Your task to perform on an android device: toggle priority inbox in the gmail app Image 0: 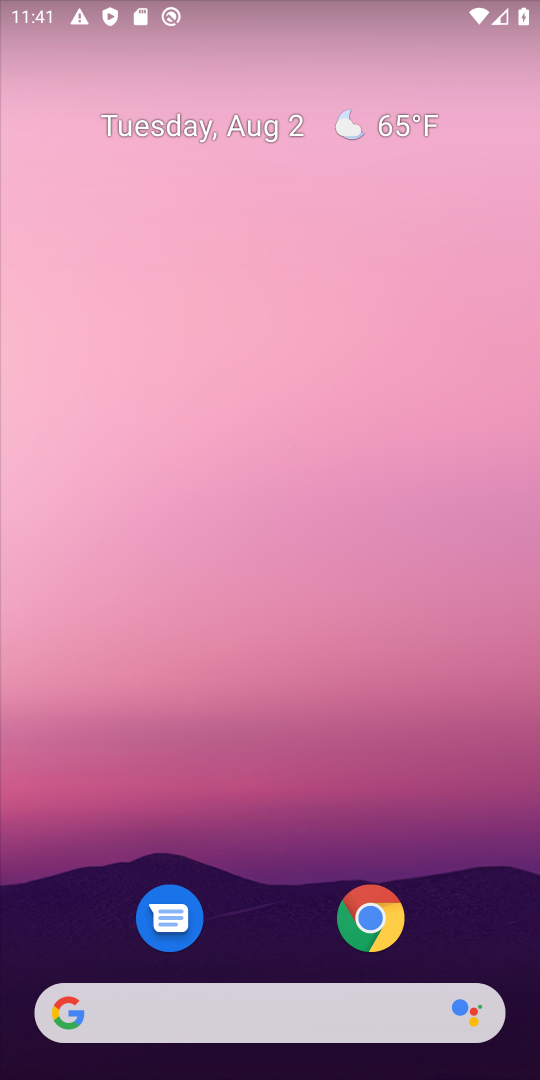
Step 0: drag from (330, 726) to (294, 38)
Your task to perform on an android device: toggle priority inbox in the gmail app Image 1: 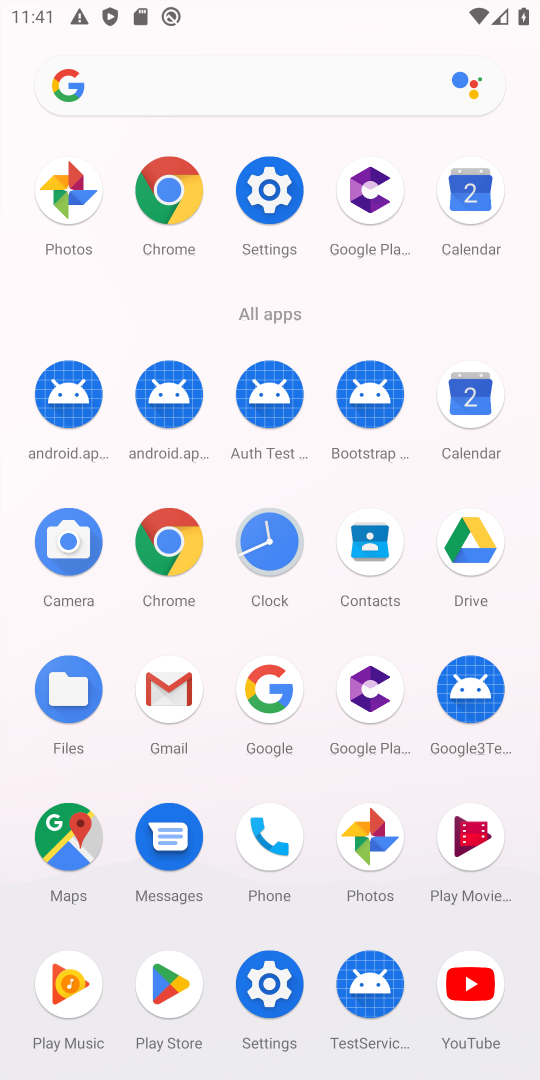
Step 1: click (173, 694)
Your task to perform on an android device: toggle priority inbox in the gmail app Image 2: 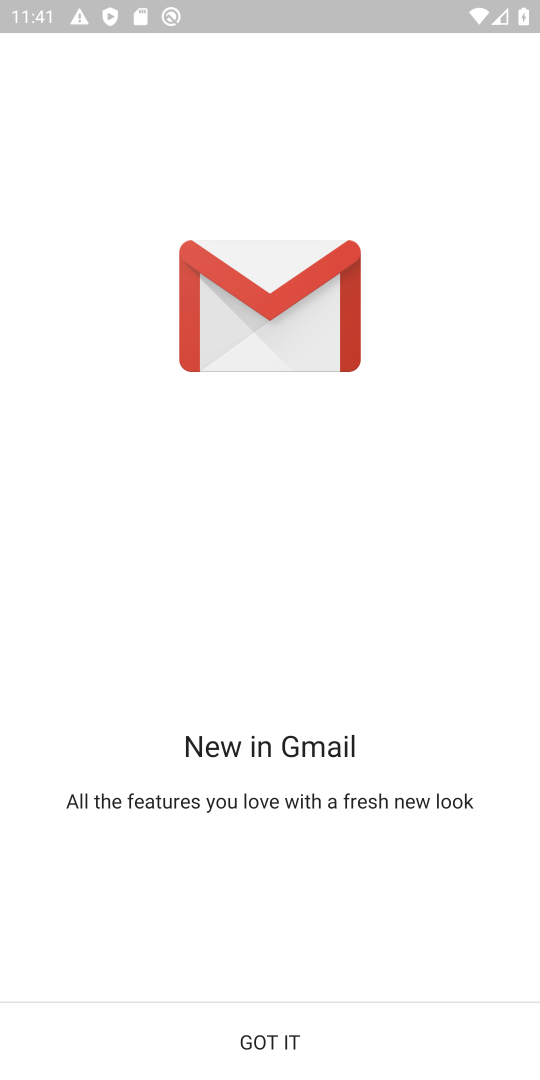
Step 2: click (331, 1034)
Your task to perform on an android device: toggle priority inbox in the gmail app Image 3: 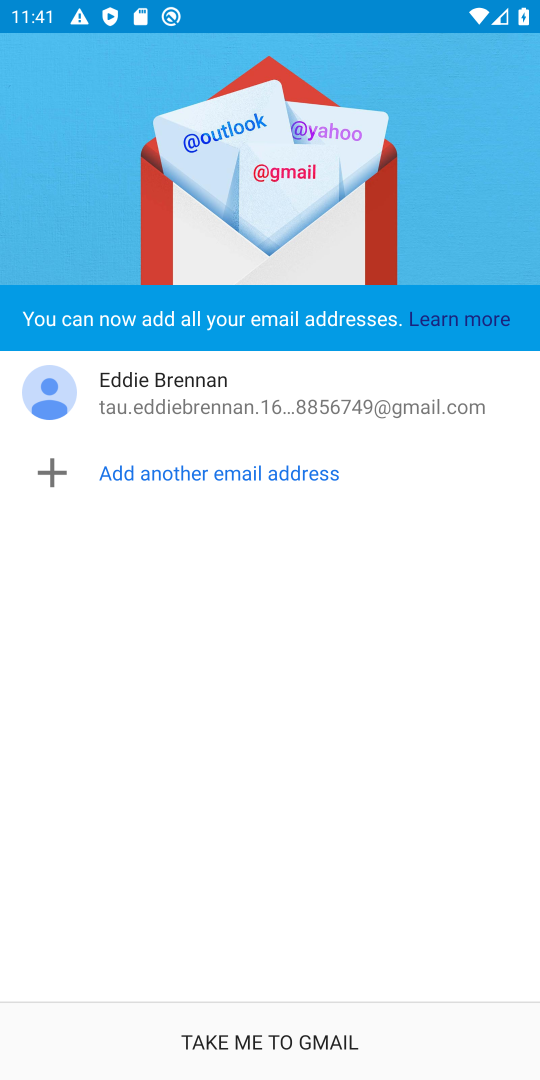
Step 3: click (335, 1032)
Your task to perform on an android device: toggle priority inbox in the gmail app Image 4: 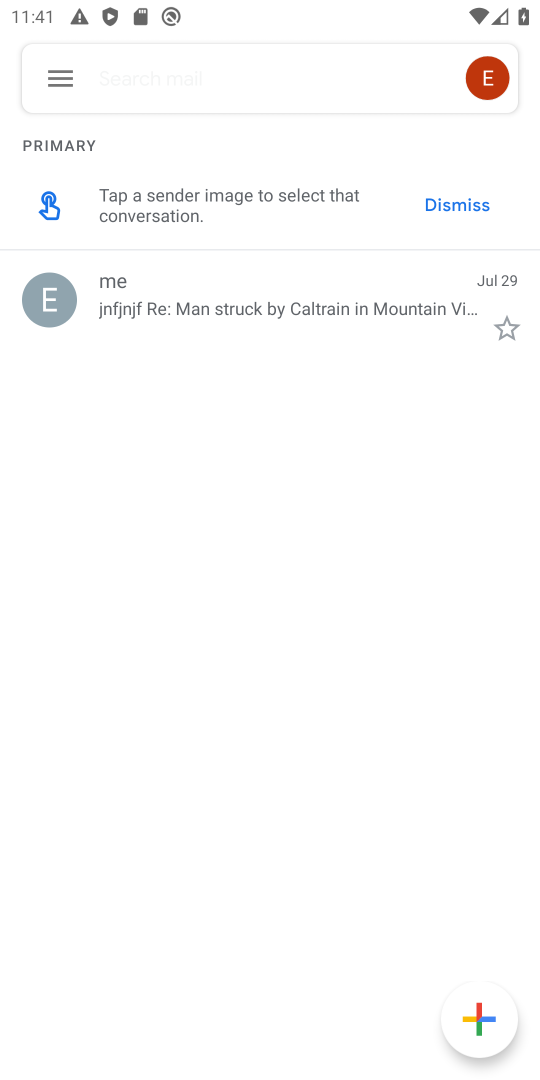
Step 4: click (60, 64)
Your task to perform on an android device: toggle priority inbox in the gmail app Image 5: 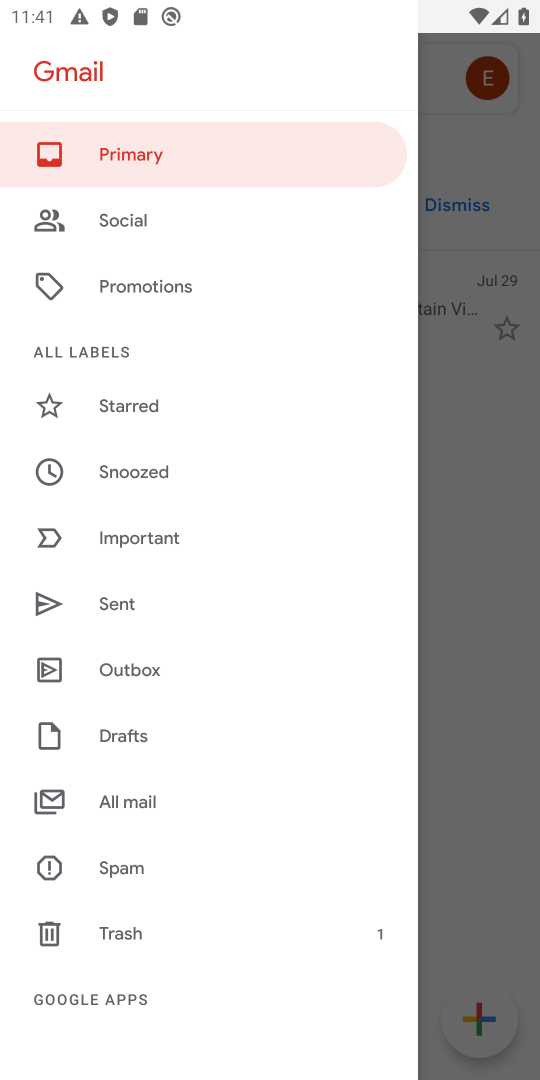
Step 5: drag from (201, 781) to (213, 396)
Your task to perform on an android device: toggle priority inbox in the gmail app Image 6: 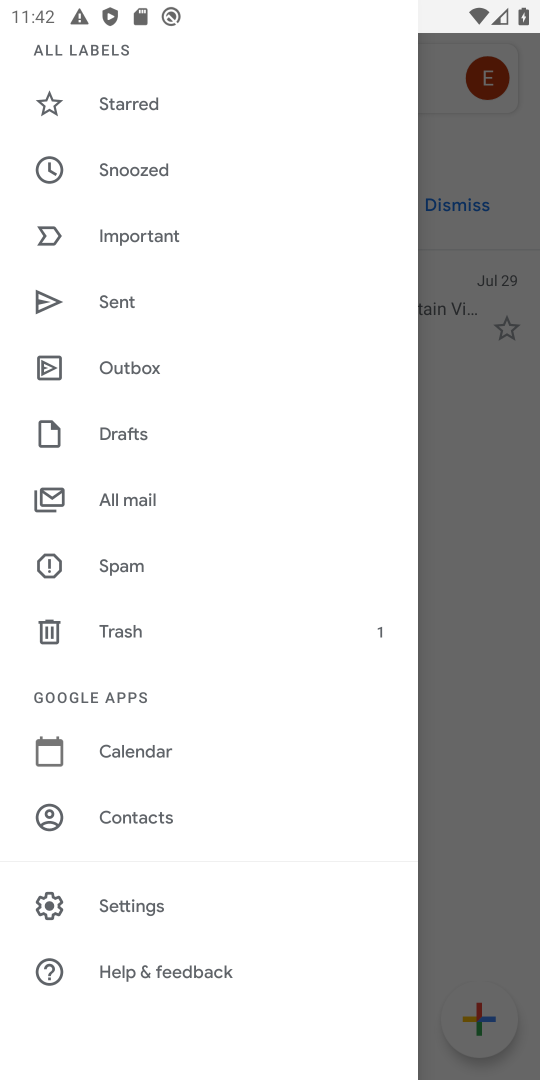
Step 6: click (124, 897)
Your task to perform on an android device: toggle priority inbox in the gmail app Image 7: 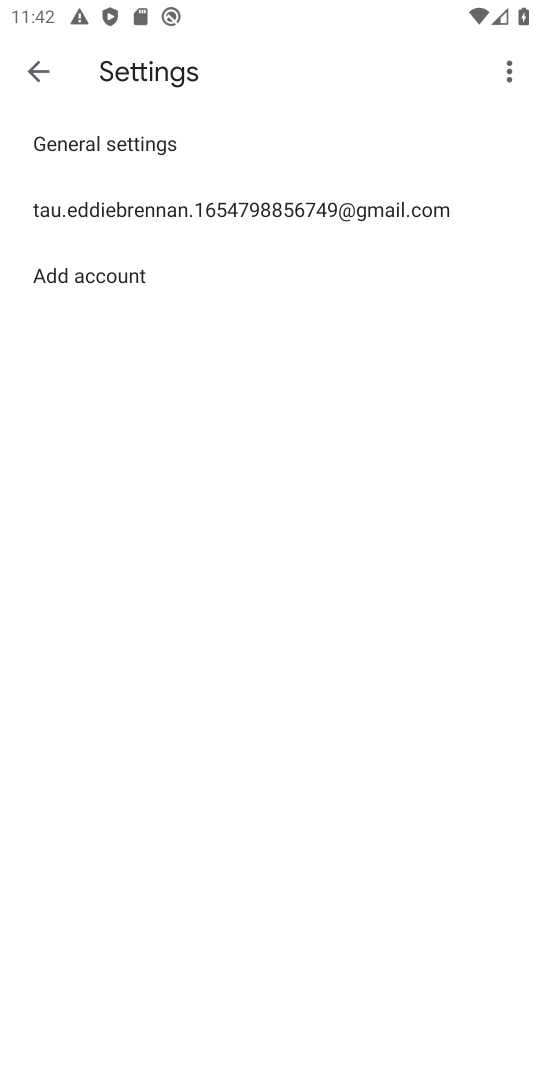
Step 7: click (317, 208)
Your task to perform on an android device: toggle priority inbox in the gmail app Image 8: 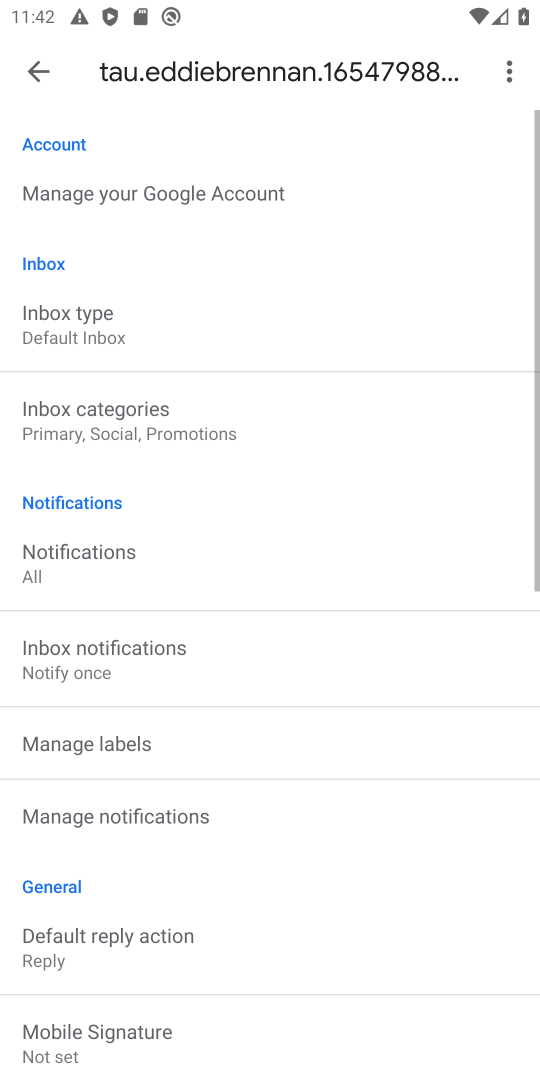
Step 8: click (102, 320)
Your task to perform on an android device: toggle priority inbox in the gmail app Image 9: 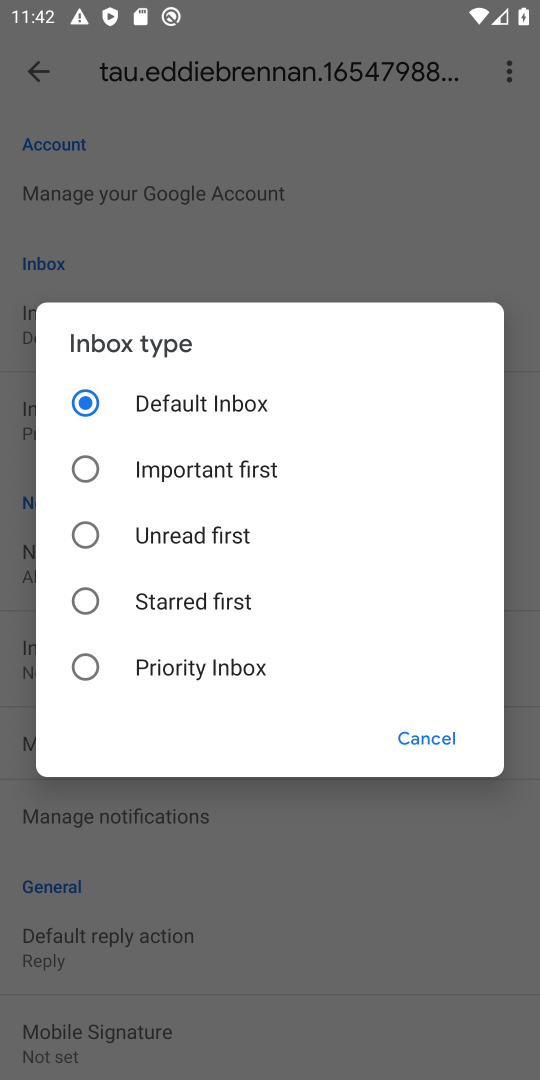
Step 9: click (85, 666)
Your task to perform on an android device: toggle priority inbox in the gmail app Image 10: 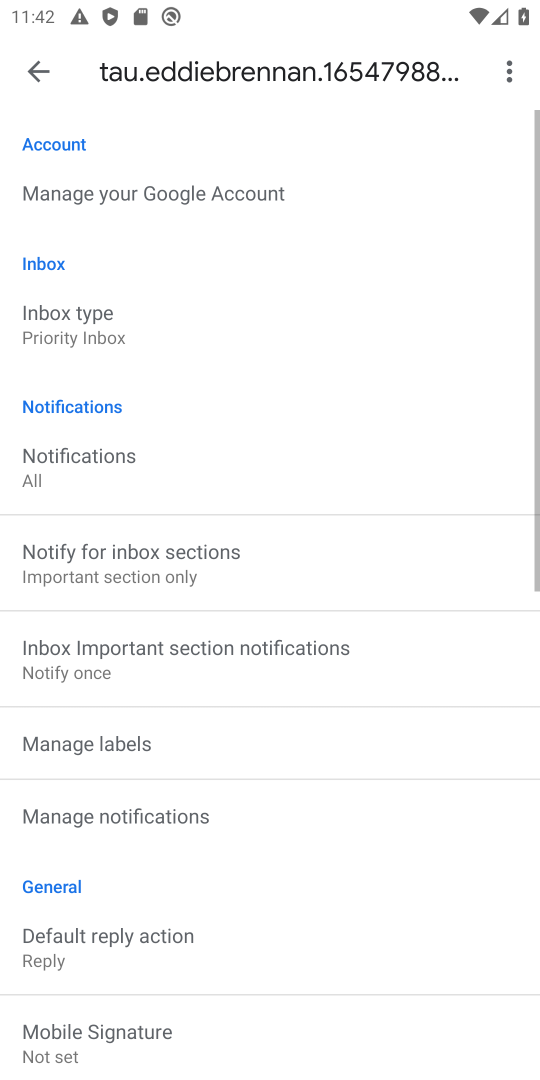
Step 10: task complete